Your task to perform on an android device: empty trash in the gmail app Image 0: 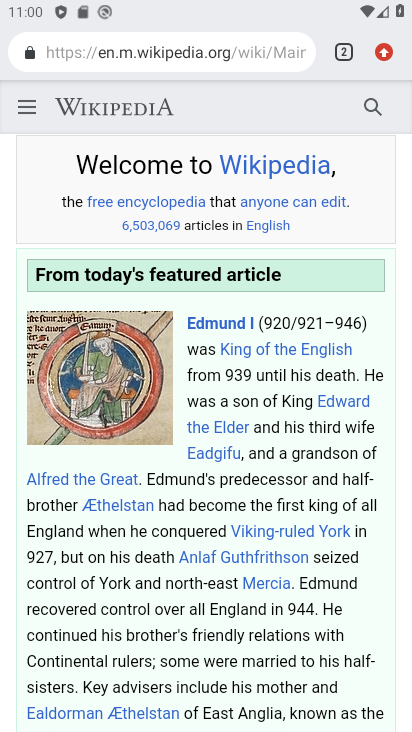
Step 0: press home button
Your task to perform on an android device: empty trash in the gmail app Image 1: 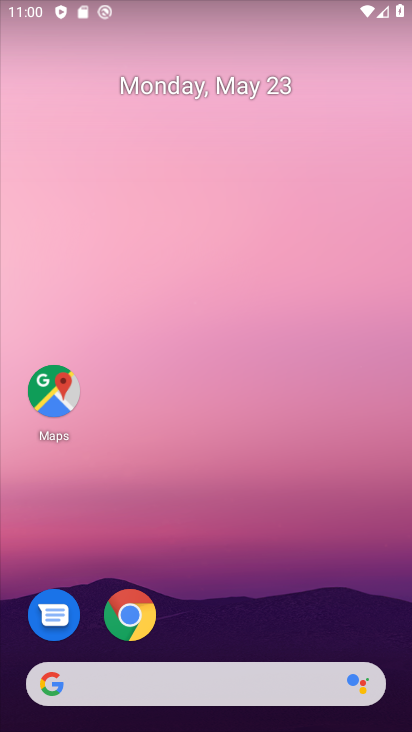
Step 1: drag from (206, 624) to (143, 191)
Your task to perform on an android device: empty trash in the gmail app Image 2: 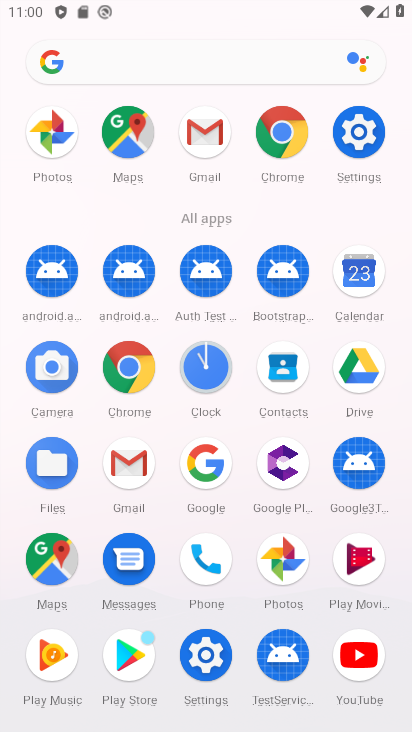
Step 2: click (213, 131)
Your task to perform on an android device: empty trash in the gmail app Image 3: 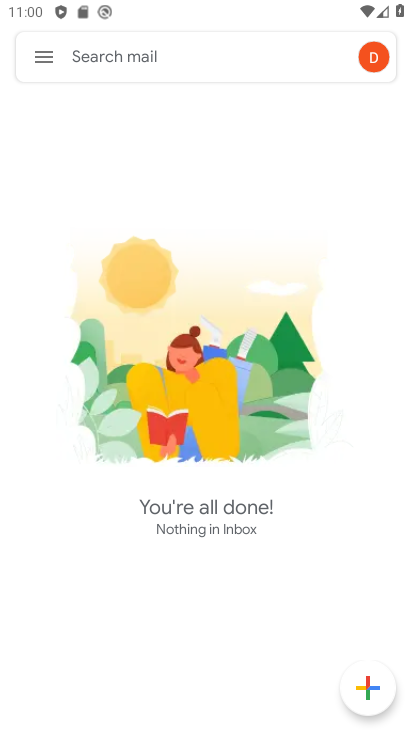
Step 3: click (36, 68)
Your task to perform on an android device: empty trash in the gmail app Image 4: 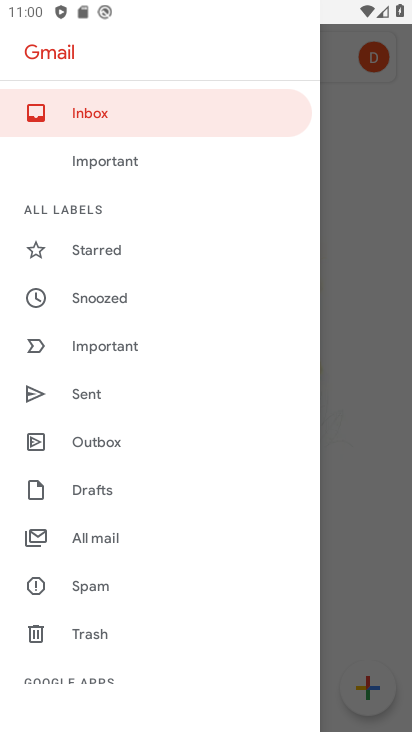
Step 4: click (74, 637)
Your task to perform on an android device: empty trash in the gmail app Image 5: 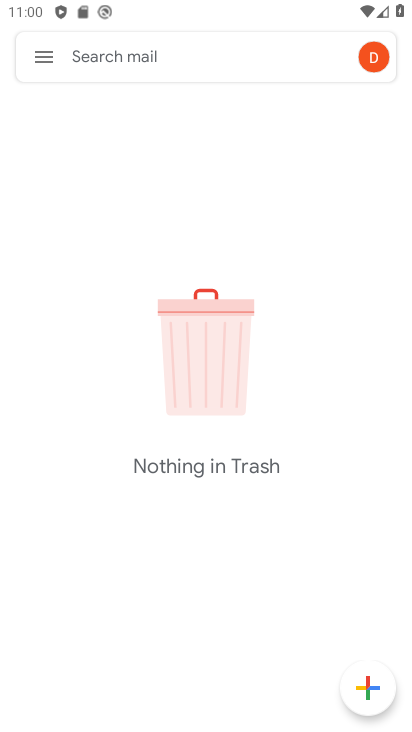
Step 5: task complete